Your task to perform on an android device: toggle sleep mode Image 0: 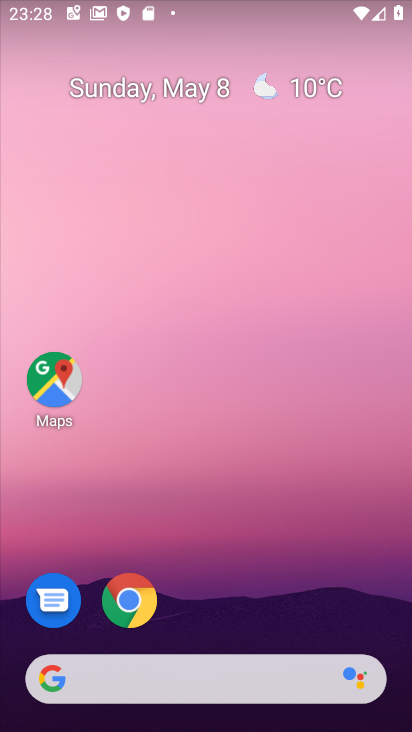
Step 0: drag from (186, 630) to (252, 75)
Your task to perform on an android device: toggle sleep mode Image 1: 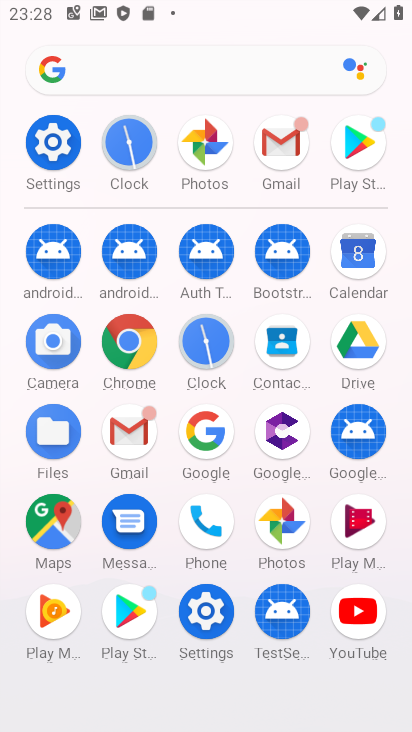
Step 1: click (52, 150)
Your task to perform on an android device: toggle sleep mode Image 2: 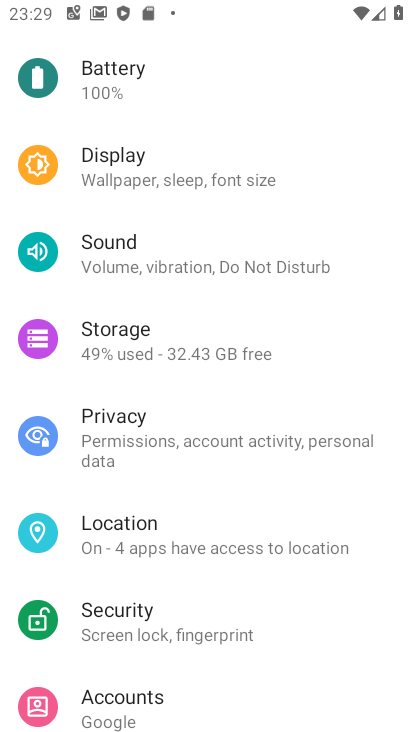
Step 2: task complete